Your task to perform on an android device: Open Google Chrome Image 0: 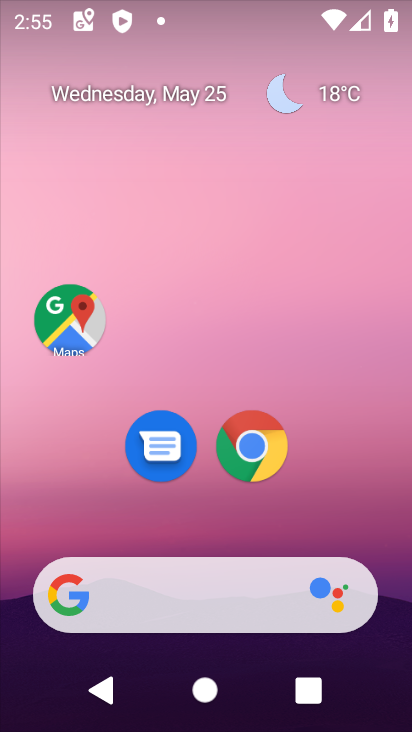
Step 0: click (247, 445)
Your task to perform on an android device: Open Google Chrome Image 1: 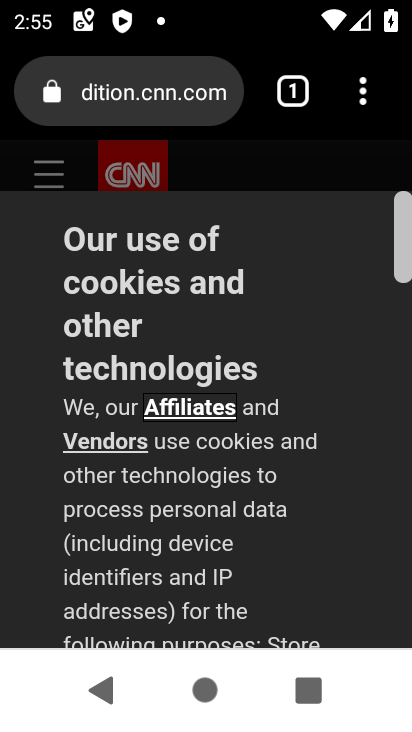
Step 1: task complete